Your task to perform on an android device: turn off notifications in google photos Image 0: 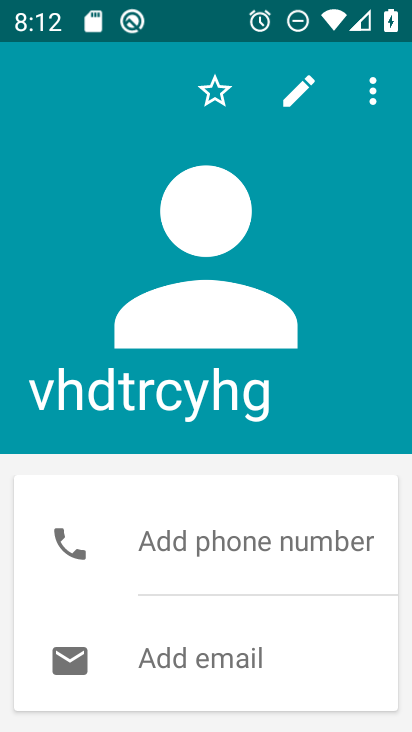
Step 0: press home button
Your task to perform on an android device: turn off notifications in google photos Image 1: 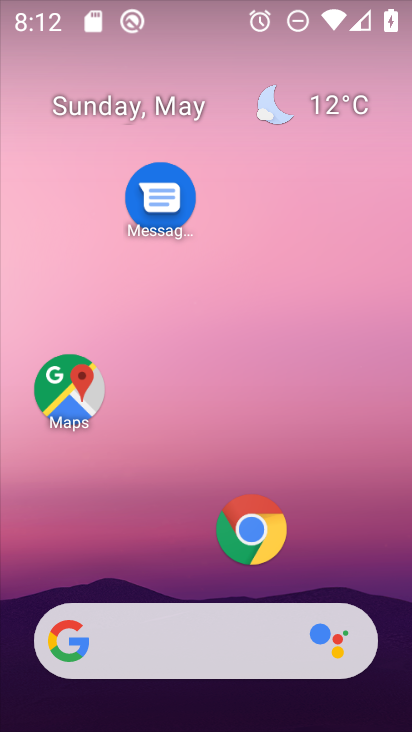
Step 1: drag from (188, 578) to (296, 35)
Your task to perform on an android device: turn off notifications in google photos Image 2: 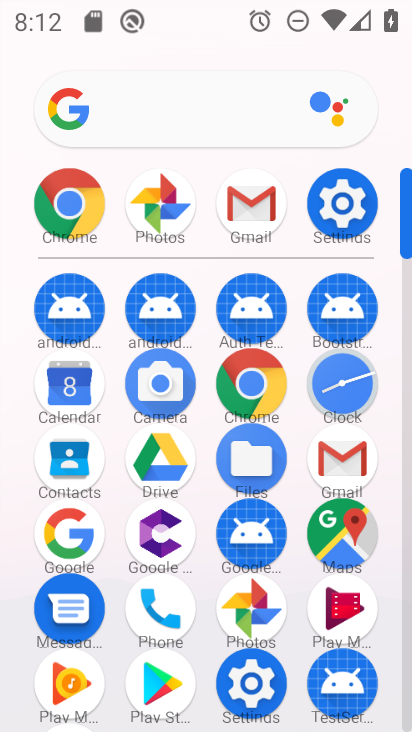
Step 2: click (250, 596)
Your task to perform on an android device: turn off notifications in google photos Image 3: 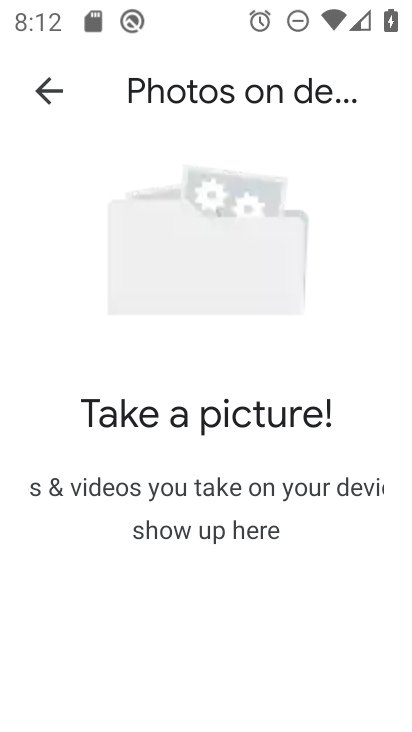
Step 3: click (61, 65)
Your task to perform on an android device: turn off notifications in google photos Image 4: 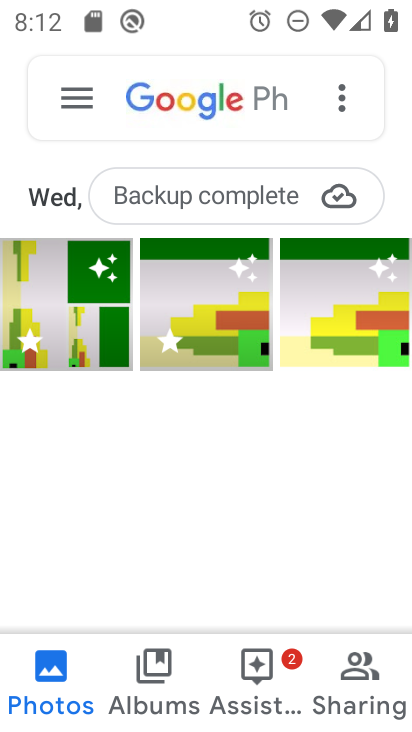
Step 4: click (77, 99)
Your task to perform on an android device: turn off notifications in google photos Image 5: 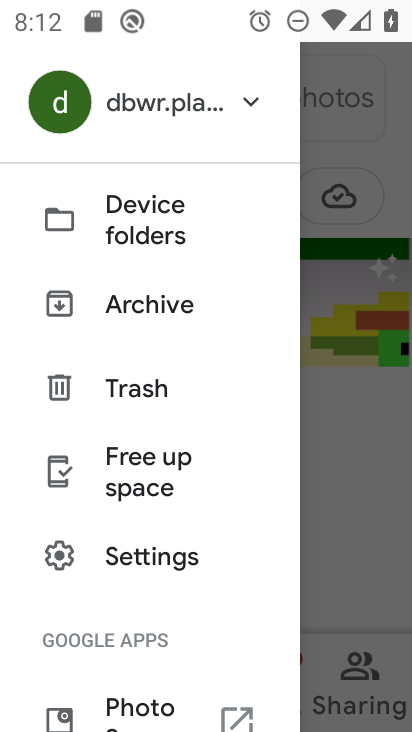
Step 5: click (93, 556)
Your task to perform on an android device: turn off notifications in google photos Image 6: 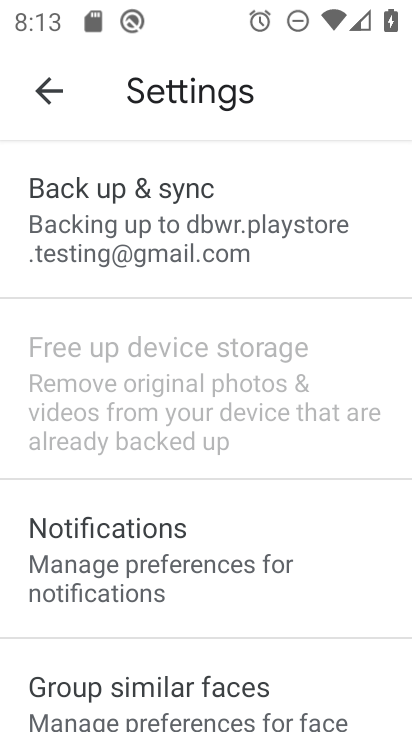
Step 6: click (217, 536)
Your task to perform on an android device: turn off notifications in google photos Image 7: 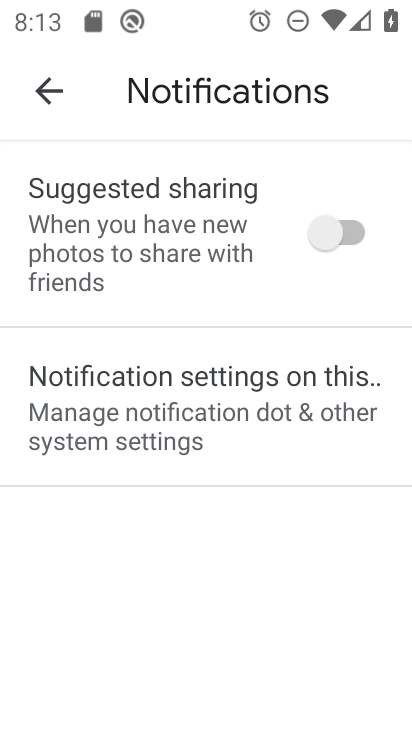
Step 7: click (237, 426)
Your task to perform on an android device: turn off notifications in google photos Image 8: 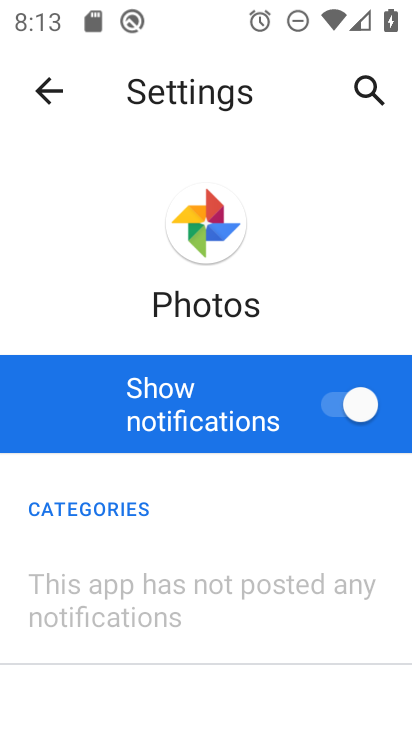
Step 8: click (332, 400)
Your task to perform on an android device: turn off notifications in google photos Image 9: 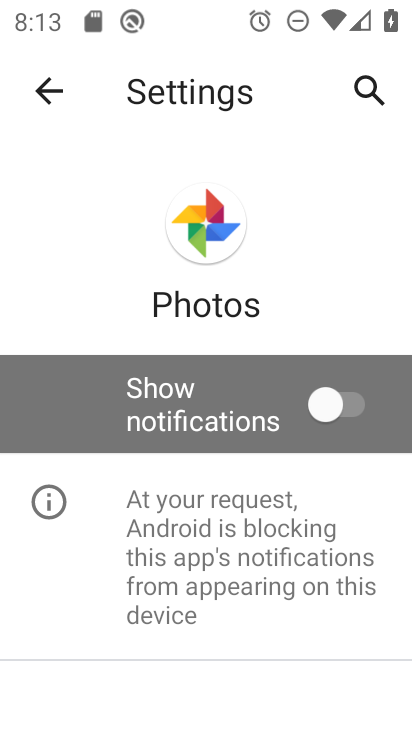
Step 9: task complete